Your task to perform on an android device: see tabs open on other devices in the chrome app Image 0: 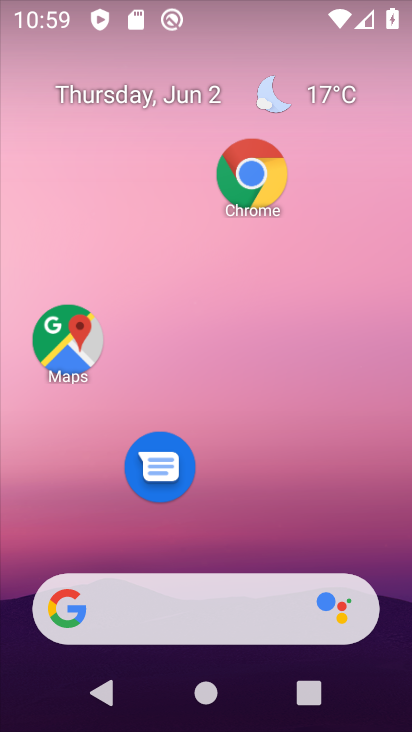
Step 0: press home button
Your task to perform on an android device: see tabs open on other devices in the chrome app Image 1: 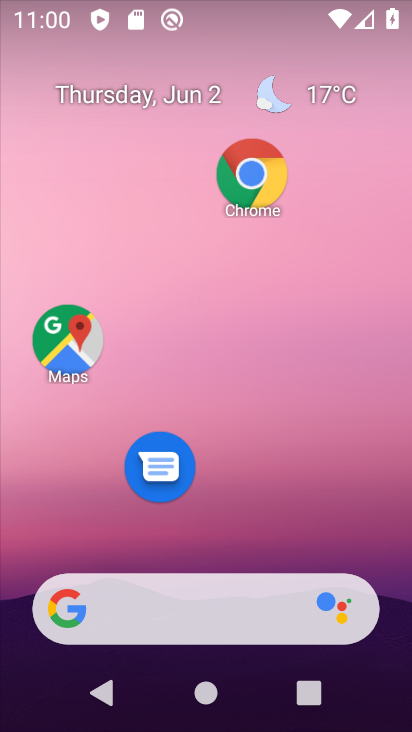
Step 1: click (241, 175)
Your task to perform on an android device: see tabs open on other devices in the chrome app Image 2: 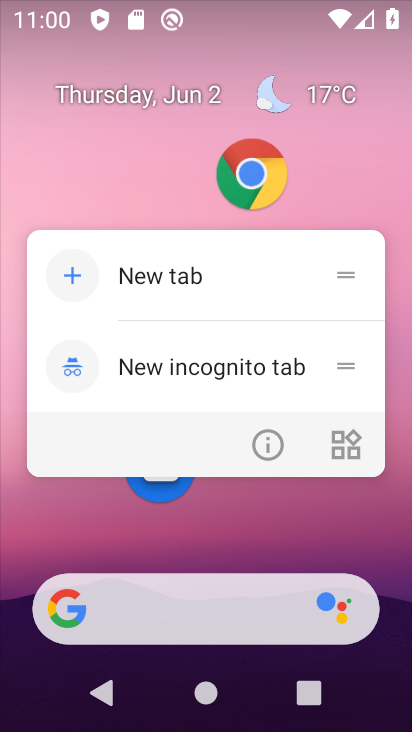
Step 2: click (234, 168)
Your task to perform on an android device: see tabs open on other devices in the chrome app Image 3: 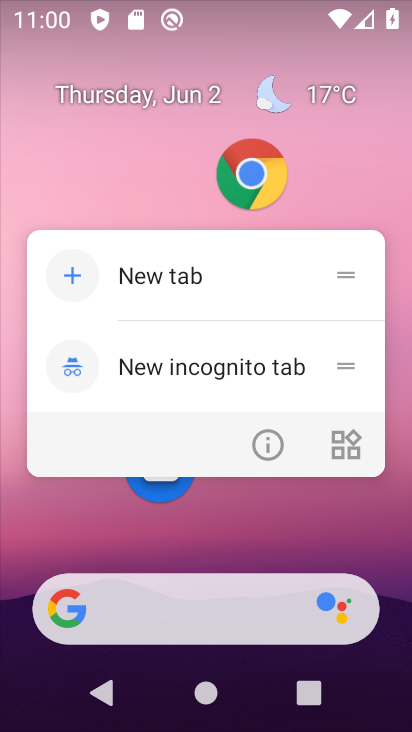
Step 3: click (228, 181)
Your task to perform on an android device: see tabs open on other devices in the chrome app Image 4: 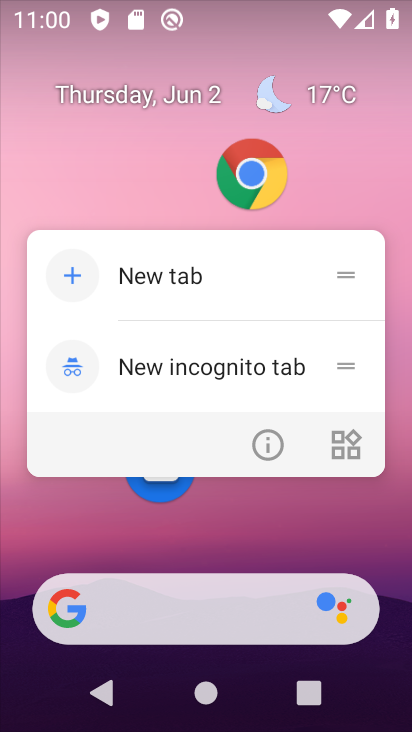
Step 4: click (209, 148)
Your task to perform on an android device: see tabs open on other devices in the chrome app Image 5: 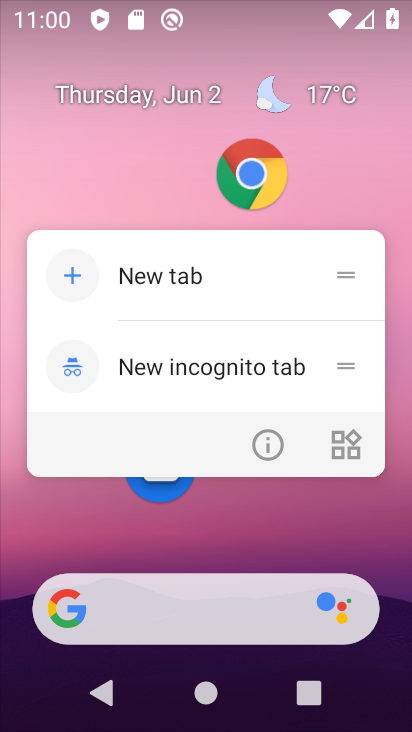
Step 5: click (346, 561)
Your task to perform on an android device: see tabs open on other devices in the chrome app Image 6: 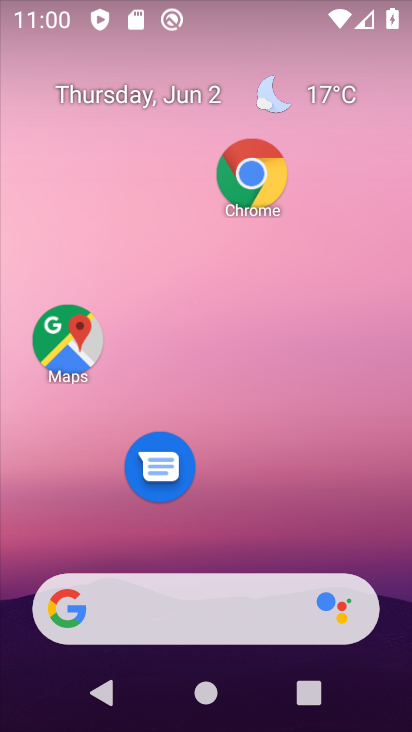
Step 6: drag from (346, 561) to (207, 1)
Your task to perform on an android device: see tabs open on other devices in the chrome app Image 7: 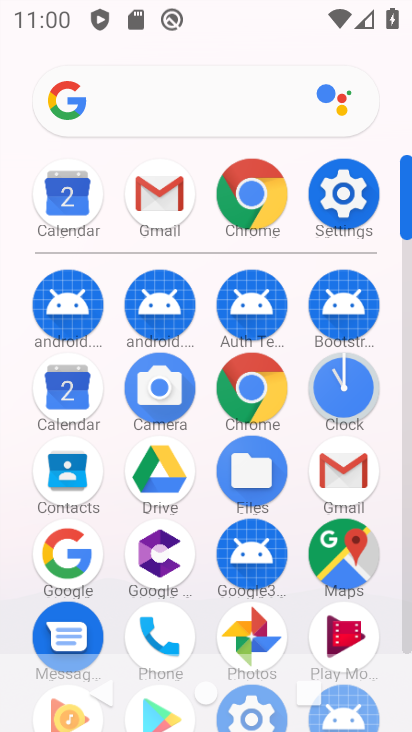
Step 7: click (257, 196)
Your task to perform on an android device: see tabs open on other devices in the chrome app Image 8: 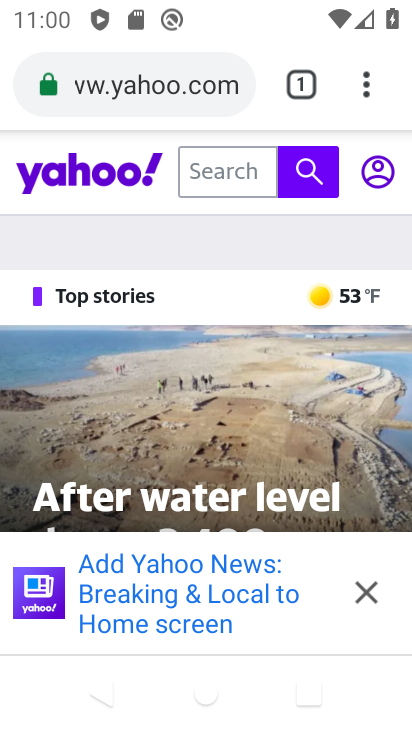
Step 8: task complete